Your task to perform on an android device: check battery use Image 0: 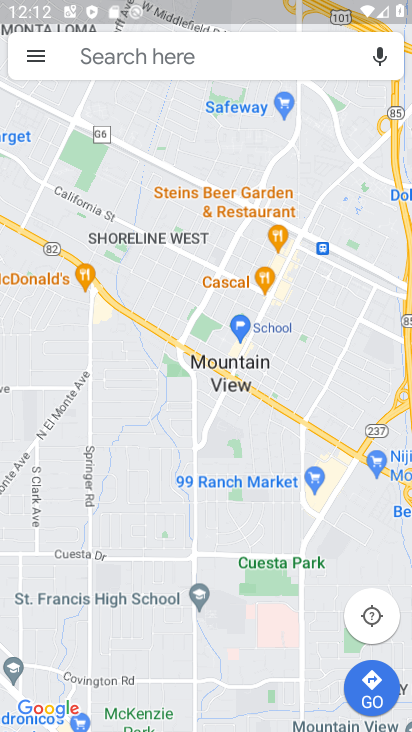
Step 0: press home button
Your task to perform on an android device: check battery use Image 1: 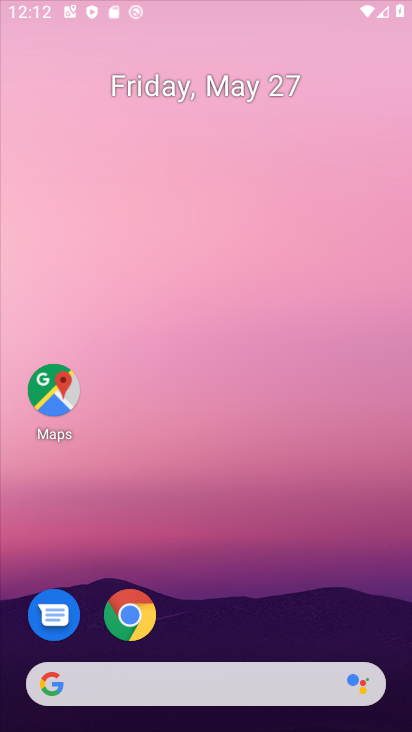
Step 1: drag from (214, 6) to (205, 510)
Your task to perform on an android device: check battery use Image 2: 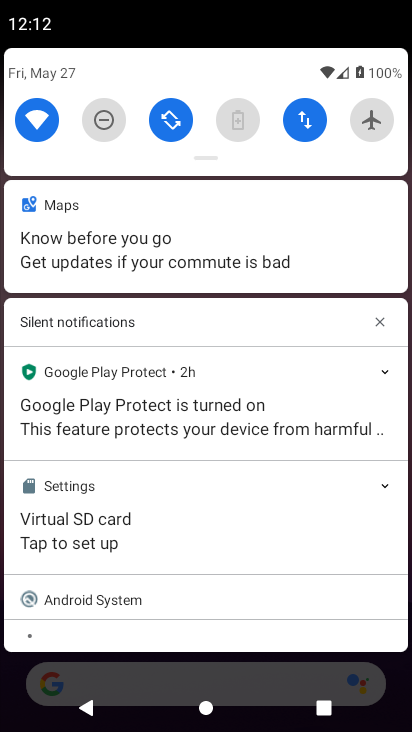
Step 2: drag from (258, 159) to (228, 724)
Your task to perform on an android device: check battery use Image 3: 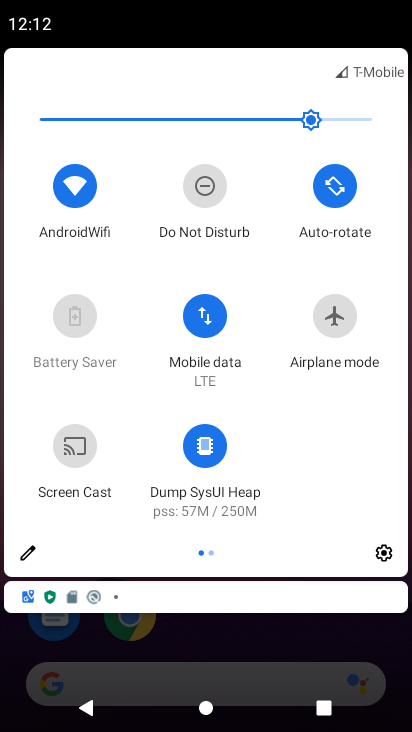
Step 3: drag from (255, 631) to (280, 70)
Your task to perform on an android device: check battery use Image 4: 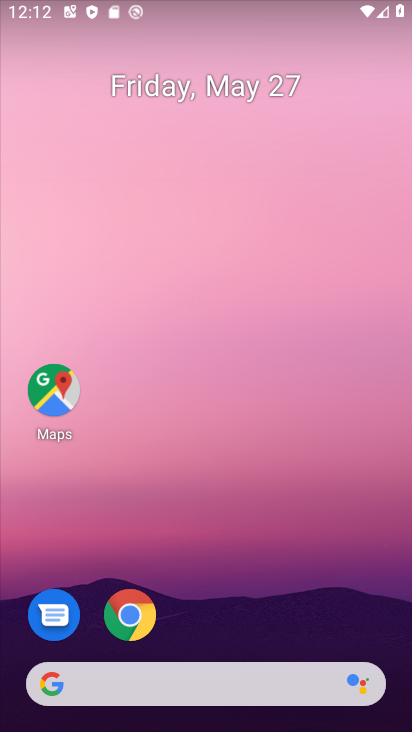
Step 4: drag from (216, 648) to (201, 66)
Your task to perform on an android device: check battery use Image 5: 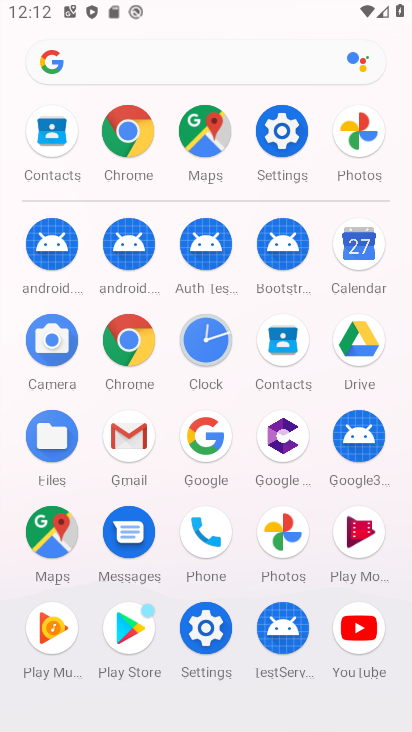
Step 5: click (283, 139)
Your task to perform on an android device: check battery use Image 6: 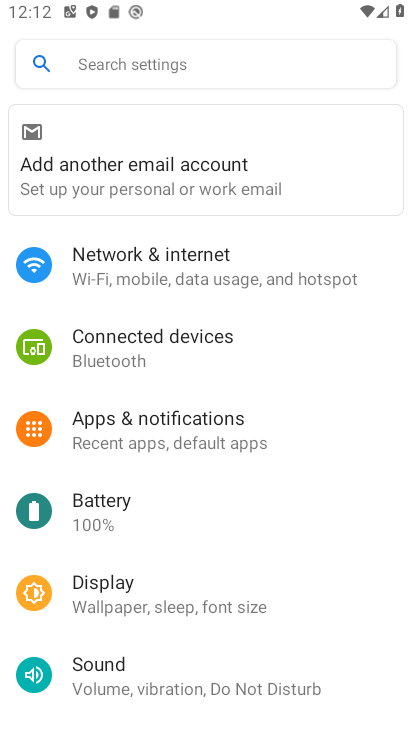
Step 6: click (139, 505)
Your task to perform on an android device: check battery use Image 7: 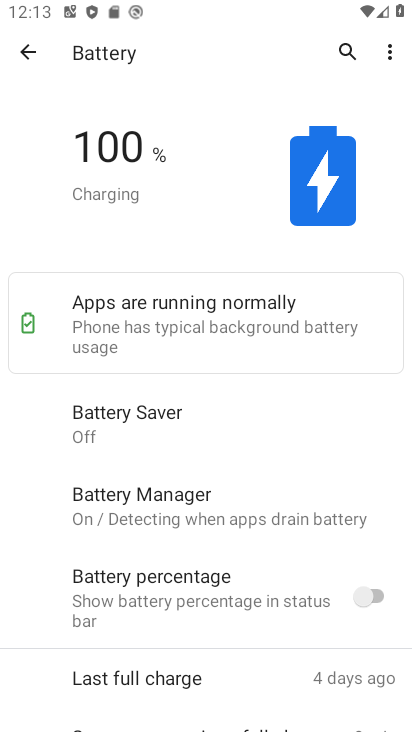
Step 7: task complete